Your task to perform on an android device: empty trash in google photos Image 0: 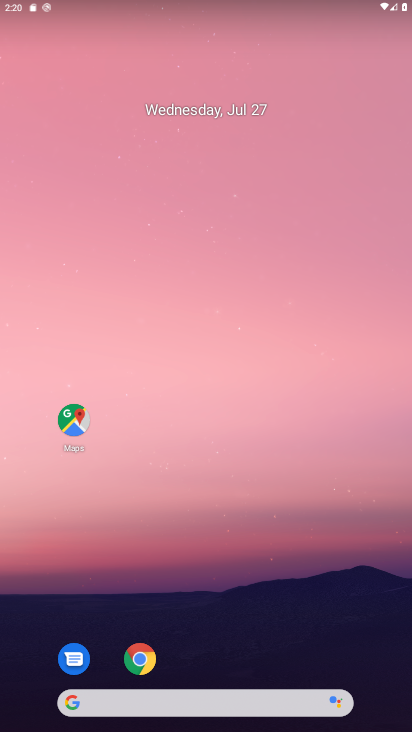
Step 0: drag from (230, 527) to (4, 0)
Your task to perform on an android device: empty trash in google photos Image 1: 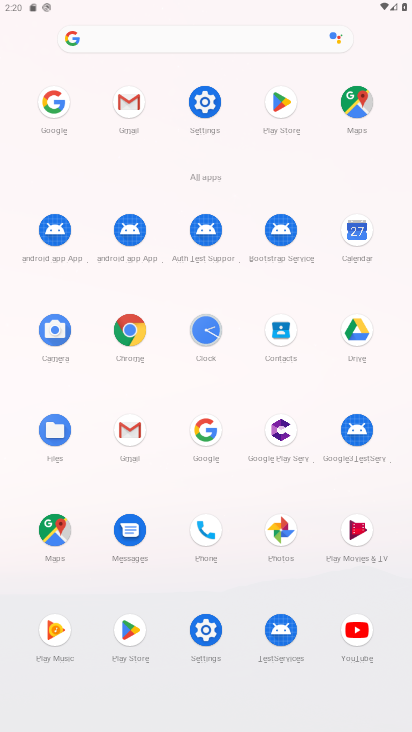
Step 1: click (269, 532)
Your task to perform on an android device: empty trash in google photos Image 2: 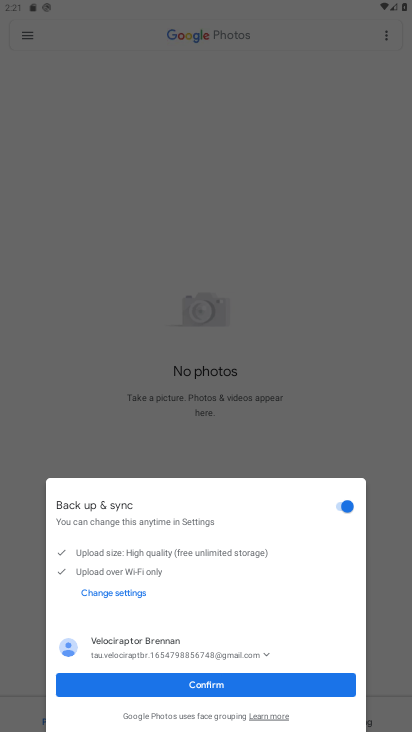
Step 2: click (208, 685)
Your task to perform on an android device: empty trash in google photos Image 3: 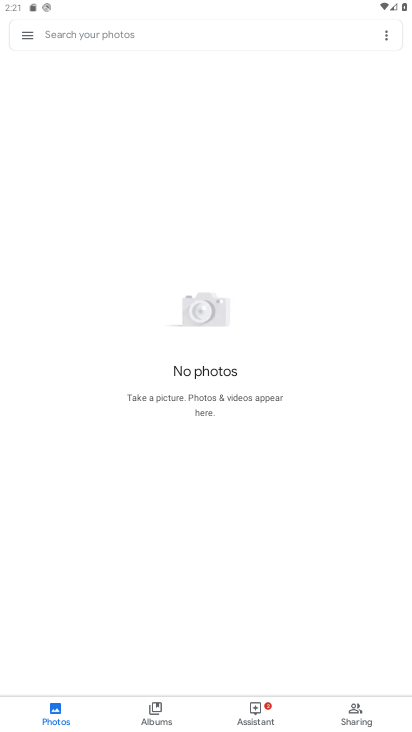
Step 3: click (24, 43)
Your task to perform on an android device: empty trash in google photos Image 4: 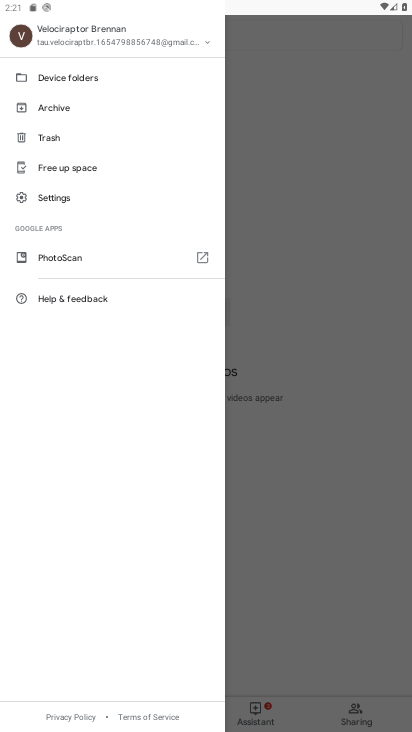
Step 4: click (55, 137)
Your task to perform on an android device: empty trash in google photos Image 5: 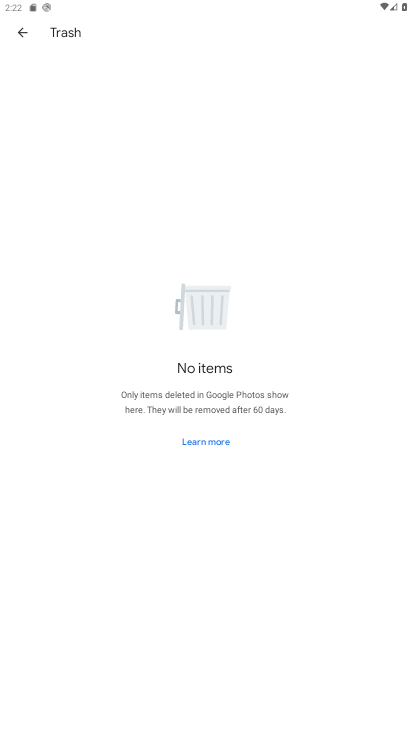
Step 5: task complete